Your task to perform on an android device: find photos in the google photos app Image 0: 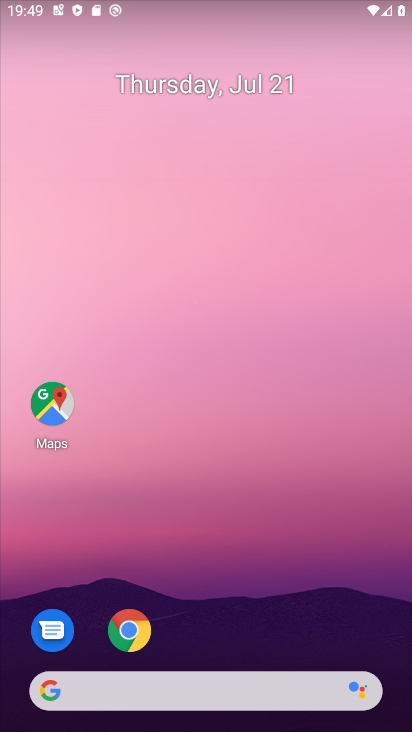
Step 0: drag from (129, 721) to (163, 3)
Your task to perform on an android device: find photos in the google photos app Image 1: 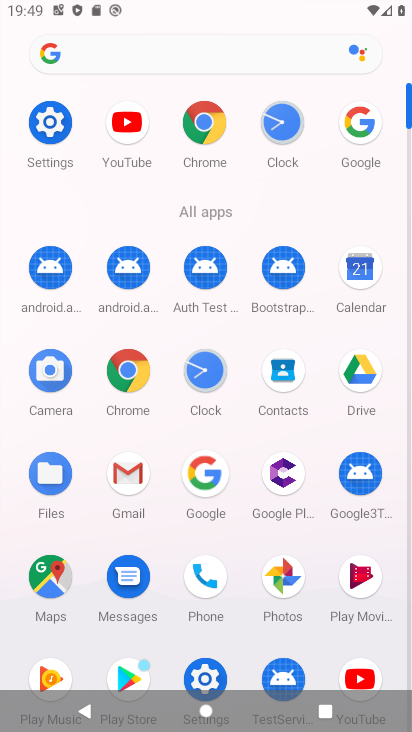
Step 1: click (267, 576)
Your task to perform on an android device: find photos in the google photos app Image 2: 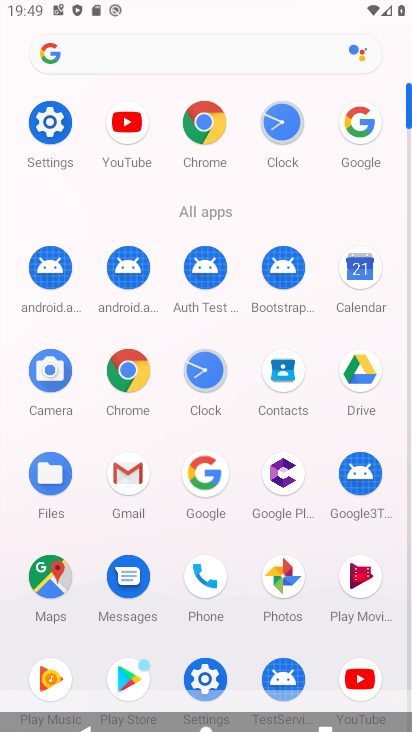
Step 2: click (267, 576)
Your task to perform on an android device: find photos in the google photos app Image 3: 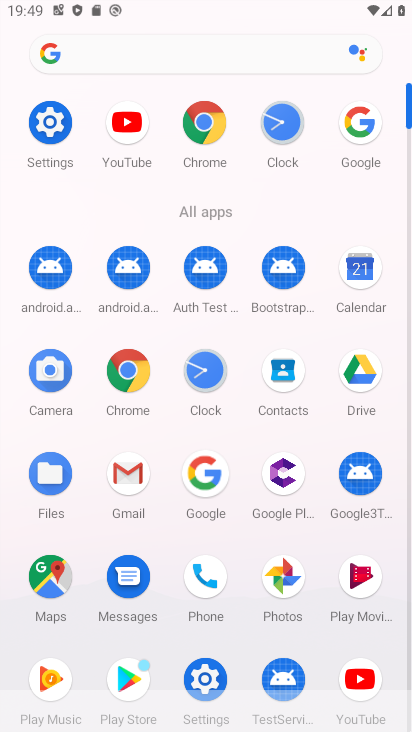
Step 3: click (267, 576)
Your task to perform on an android device: find photos in the google photos app Image 4: 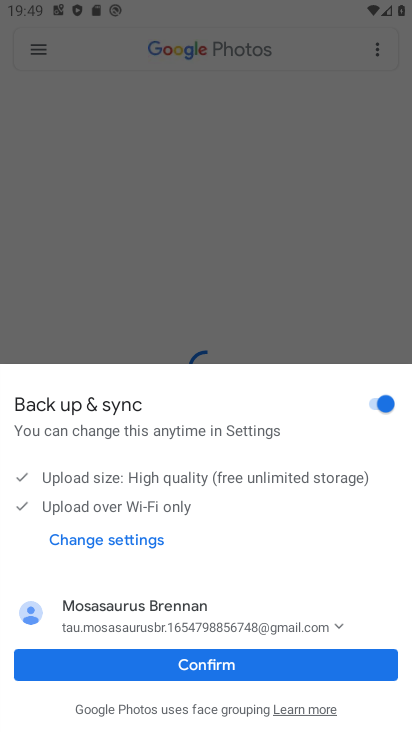
Step 4: click (298, 668)
Your task to perform on an android device: find photos in the google photos app Image 5: 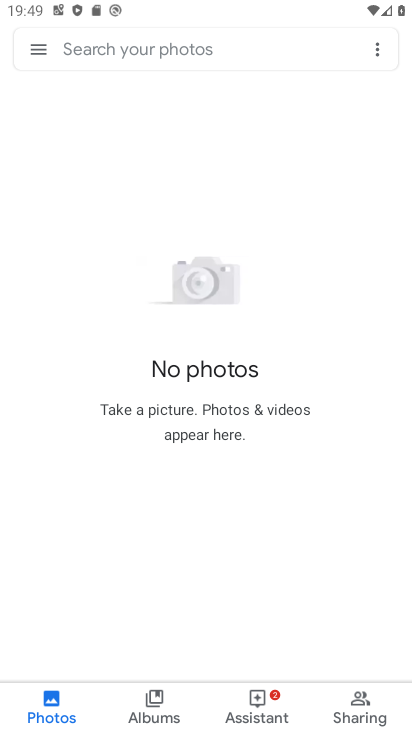
Step 5: task complete